Your task to perform on an android device: Toggle the flashlight Image 0: 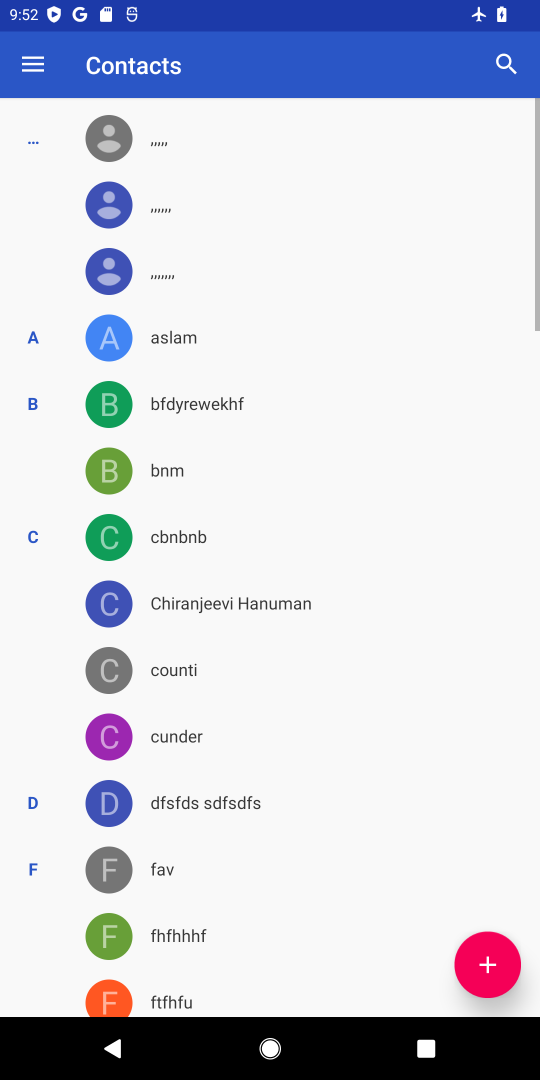
Step 0: press home button
Your task to perform on an android device: Toggle the flashlight Image 1: 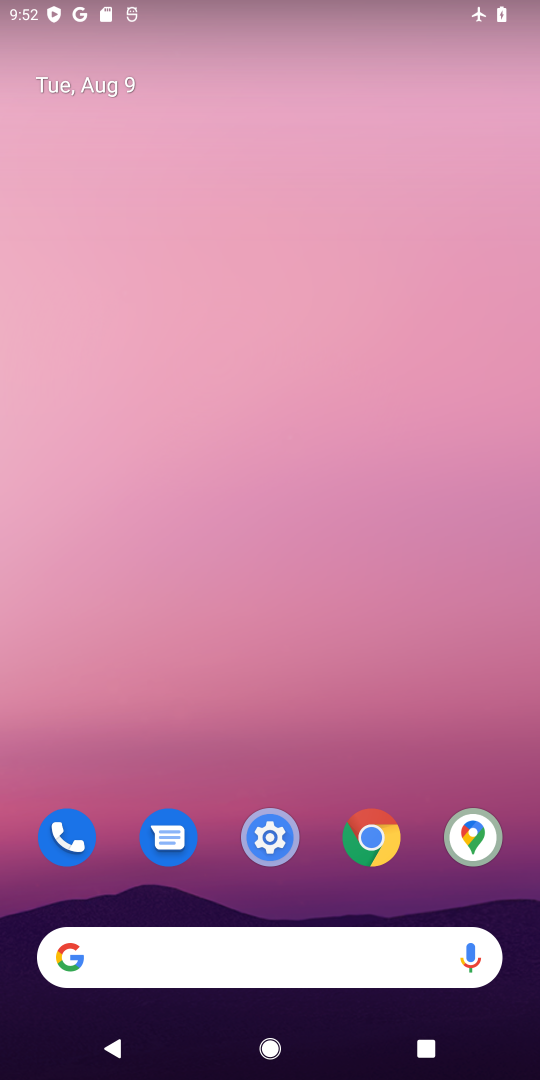
Step 1: drag from (324, 830) to (324, 389)
Your task to perform on an android device: Toggle the flashlight Image 2: 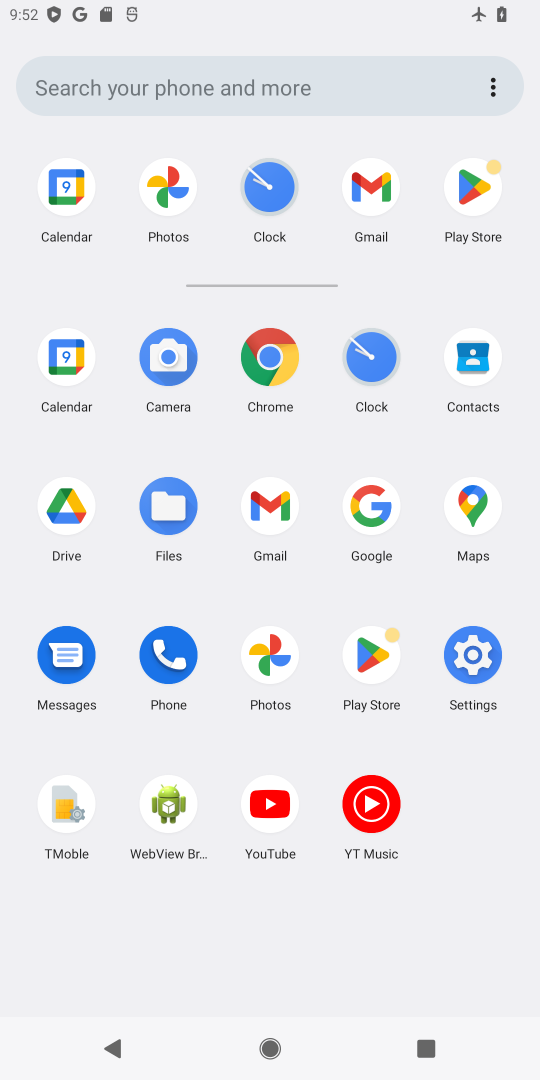
Step 2: click (457, 651)
Your task to perform on an android device: Toggle the flashlight Image 3: 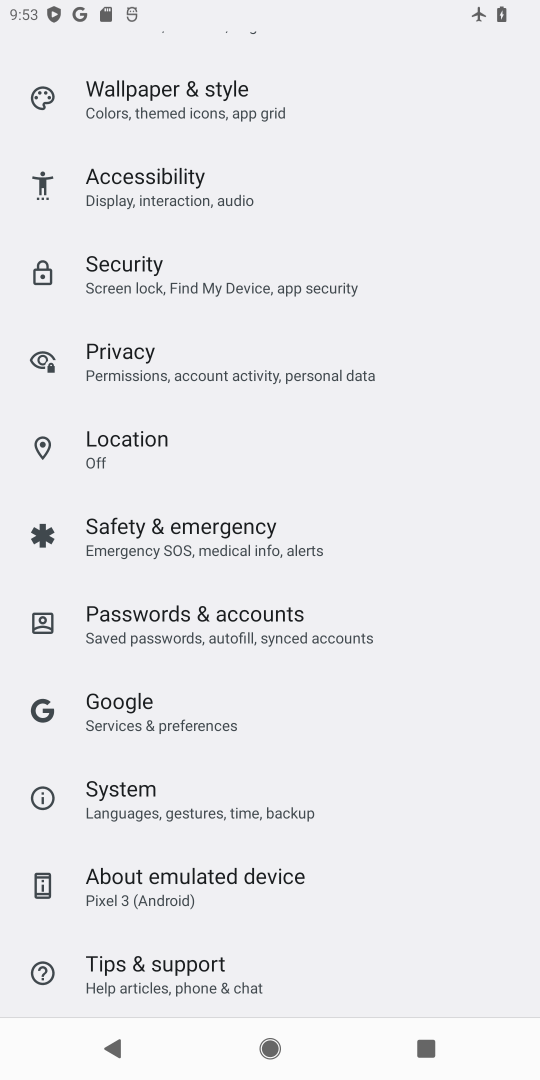
Step 3: task complete